Your task to perform on an android device: Turn off the flashlight Image 0: 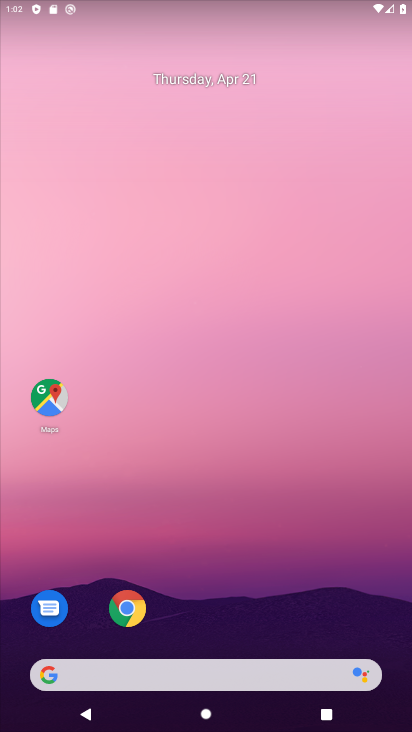
Step 0: click (272, 632)
Your task to perform on an android device: Turn off the flashlight Image 1: 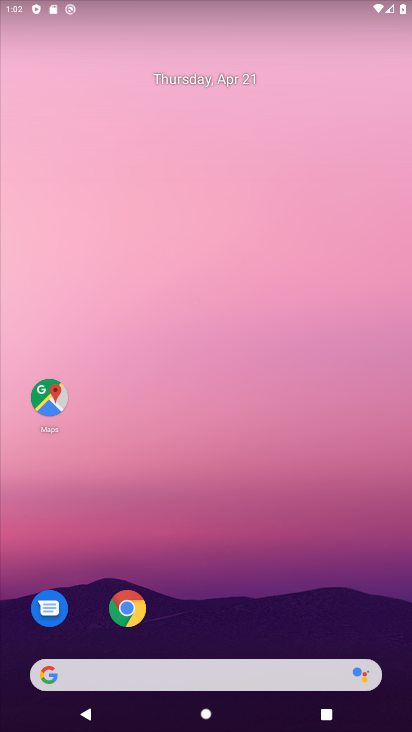
Step 1: click (276, 600)
Your task to perform on an android device: Turn off the flashlight Image 2: 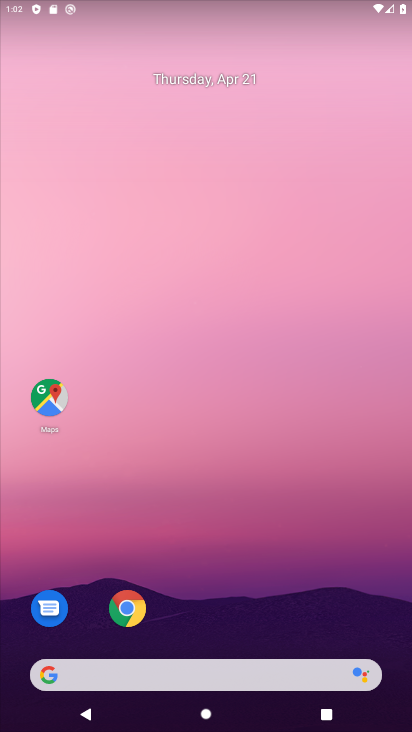
Step 2: drag from (255, 484) to (269, 211)
Your task to perform on an android device: Turn off the flashlight Image 3: 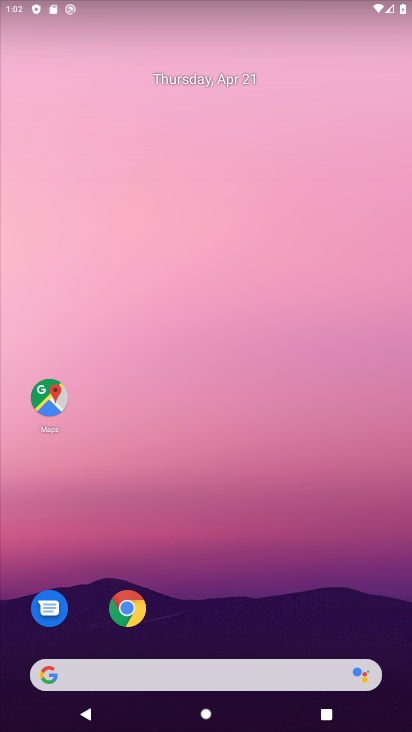
Step 3: drag from (252, 518) to (262, 186)
Your task to perform on an android device: Turn off the flashlight Image 4: 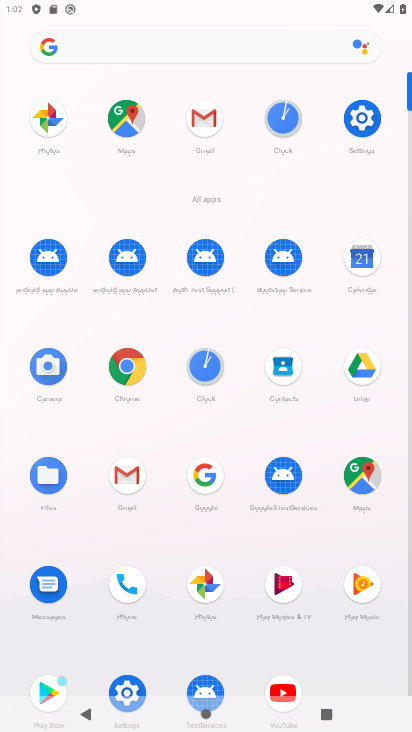
Step 4: click (353, 119)
Your task to perform on an android device: Turn off the flashlight Image 5: 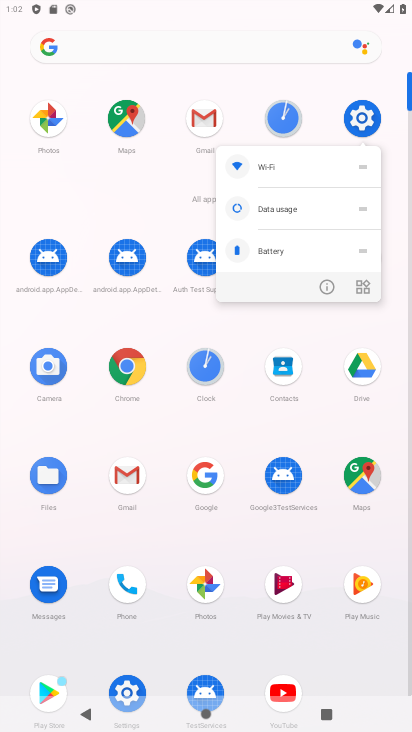
Step 5: click (368, 116)
Your task to perform on an android device: Turn off the flashlight Image 6: 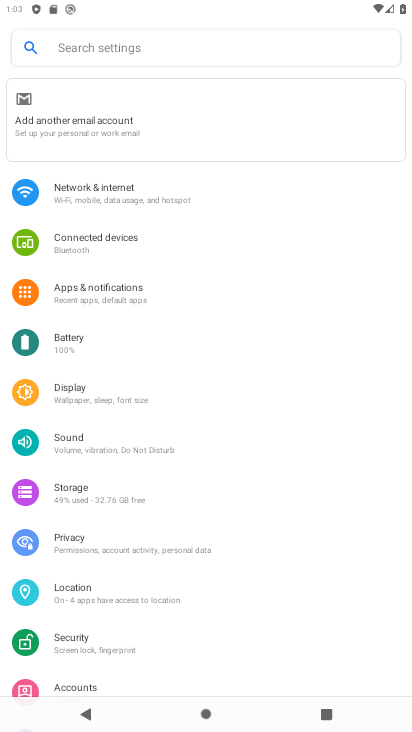
Step 6: task complete